Your task to perform on an android device: manage bookmarks in the chrome app Image 0: 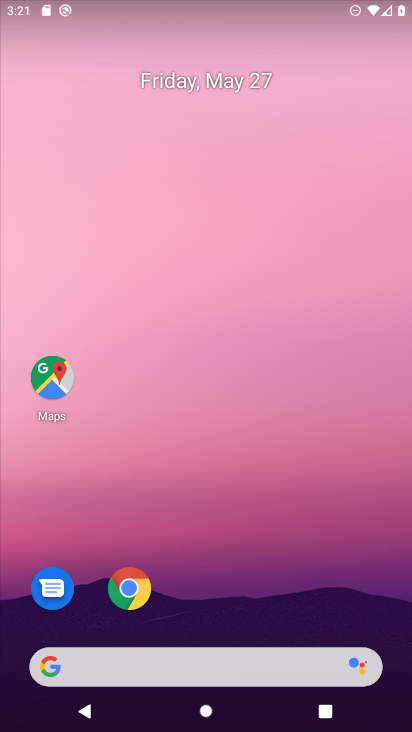
Step 0: click (139, 585)
Your task to perform on an android device: manage bookmarks in the chrome app Image 1: 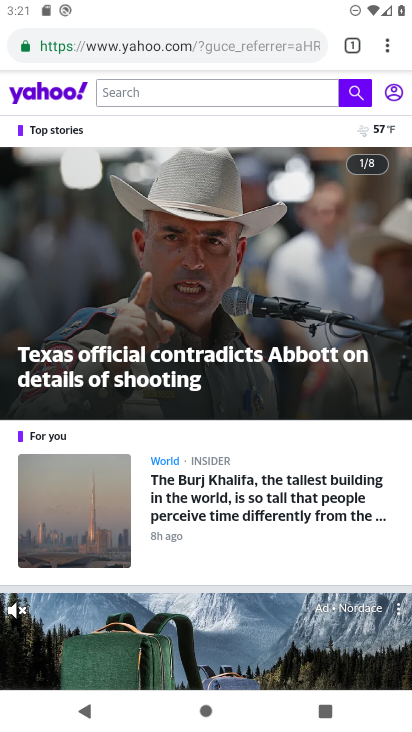
Step 1: click (387, 32)
Your task to perform on an android device: manage bookmarks in the chrome app Image 2: 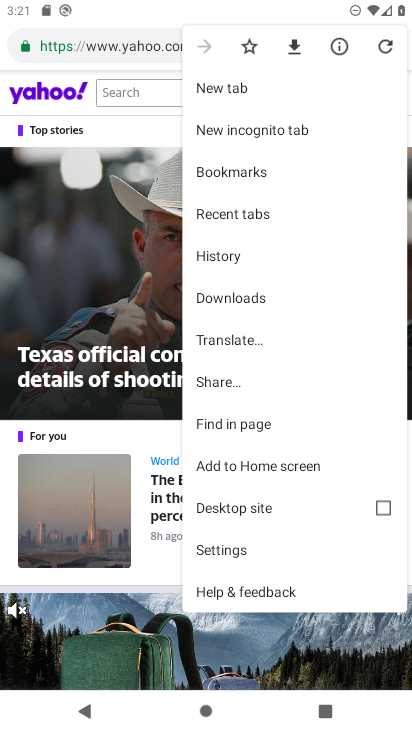
Step 2: click (242, 163)
Your task to perform on an android device: manage bookmarks in the chrome app Image 3: 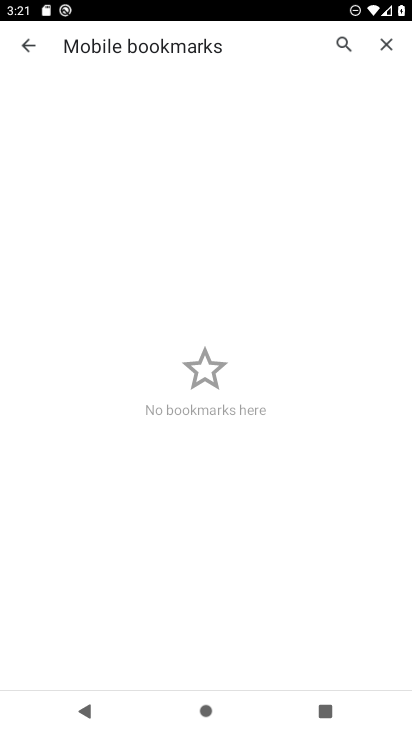
Step 3: task complete